Your task to perform on an android device: Go to Amazon Image 0: 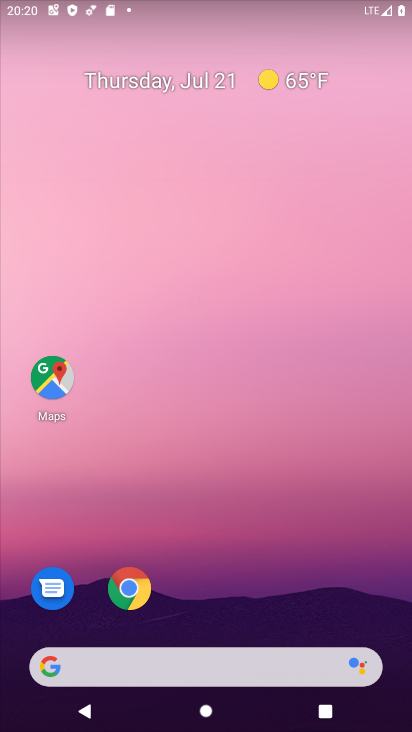
Step 0: click (131, 579)
Your task to perform on an android device: Go to Amazon Image 1: 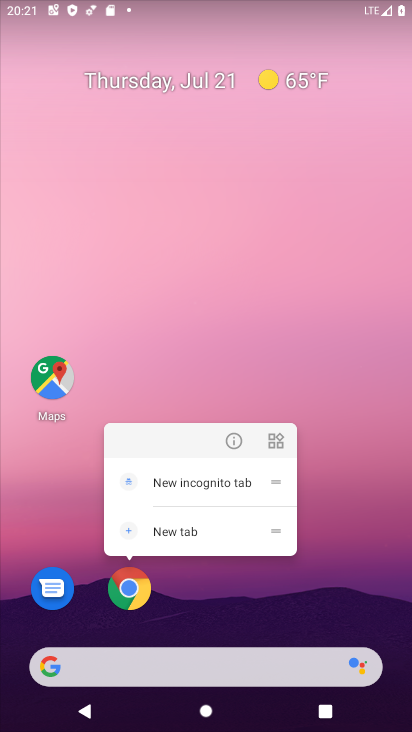
Step 1: click (131, 581)
Your task to perform on an android device: Go to Amazon Image 2: 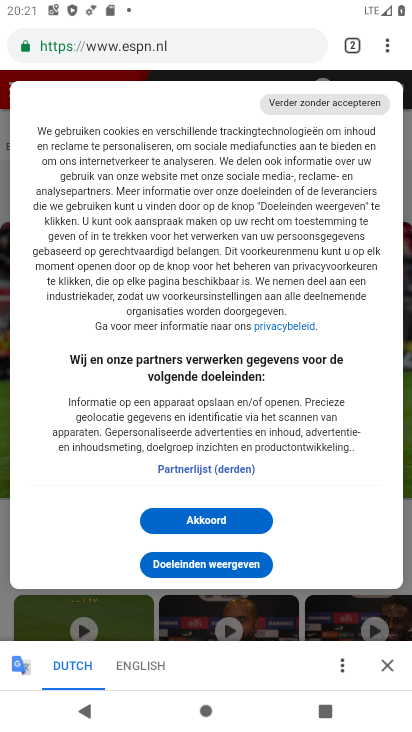
Step 2: click (342, 51)
Your task to perform on an android device: Go to Amazon Image 3: 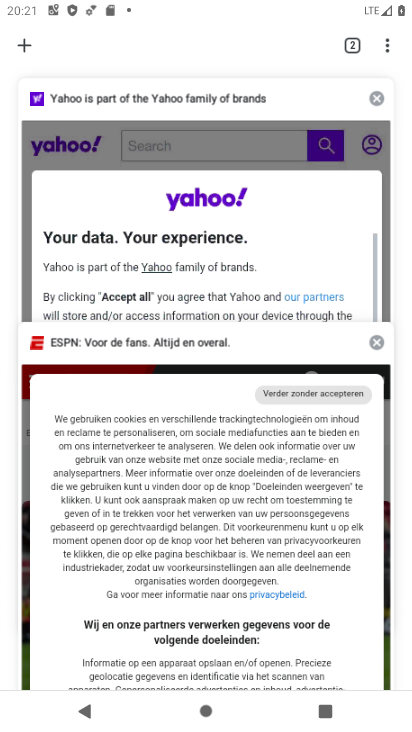
Step 3: click (27, 45)
Your task to perform on an android device: Go to Amazon Image 4: 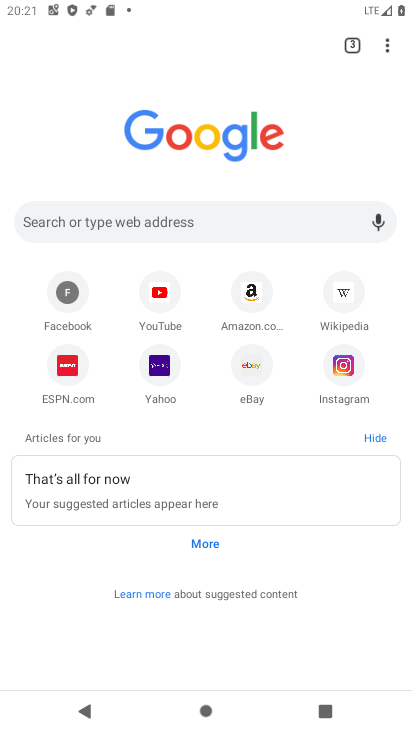
Step 4: click (250, 288)
Your task to perform on an android device: Go to Amazon Image 5: 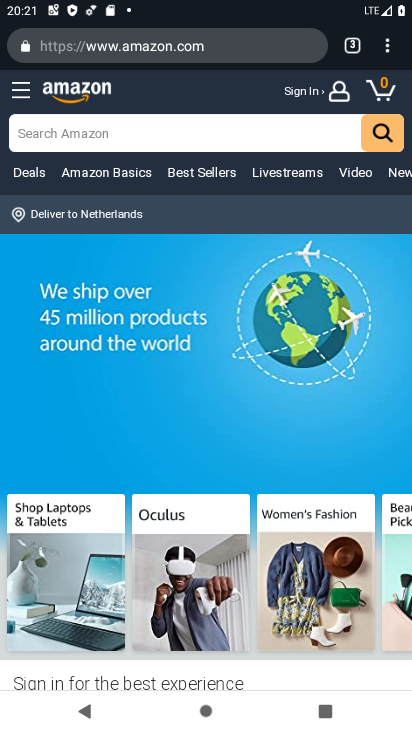
Step 5: task complete